Your task to perform on an android device: Go to internet settings Image 0: 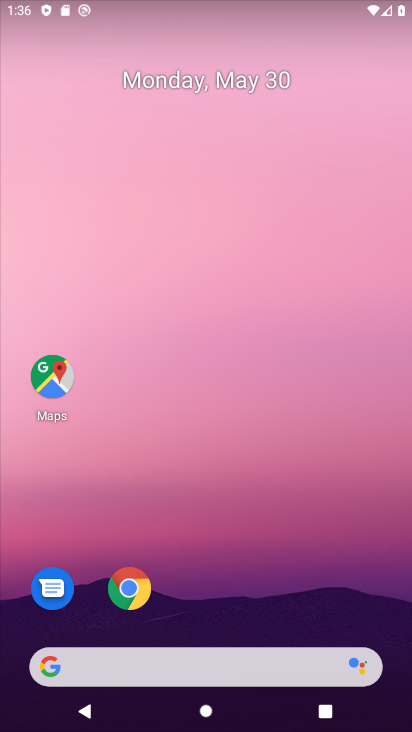
Step 0: drag from (317, 401) to (214, 10)
Your task to perform on an android device: Go to internet settings Image 1: 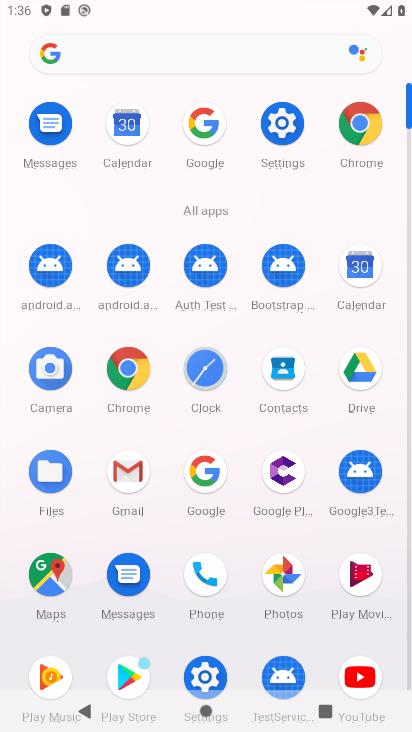
Step 1: click (283, 130)
Your task to perform on an android device: Go to internet settings Image 2: 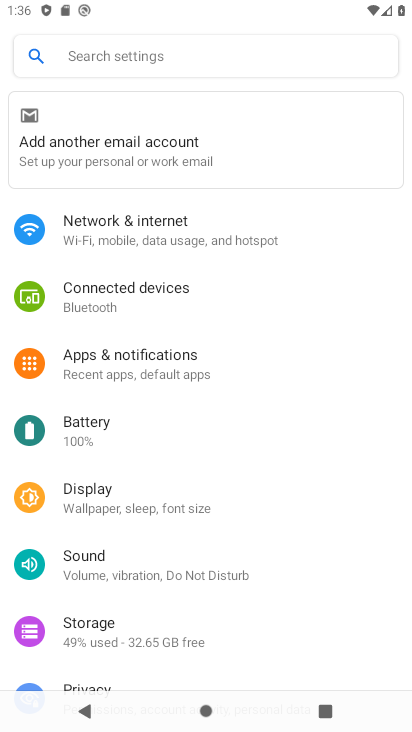
Step 2: click (200, 240)
Your task to perform on an android device: Go to internet settings Image 3: 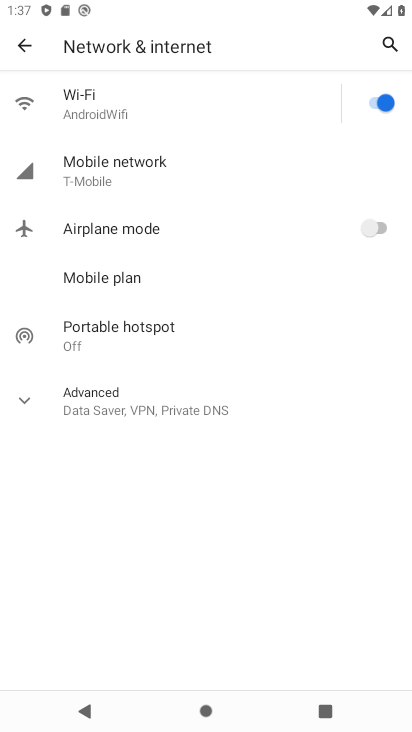
Step 3: task complete